Your task to perform on an android device: Do I have any events tomorrow? Image 0: 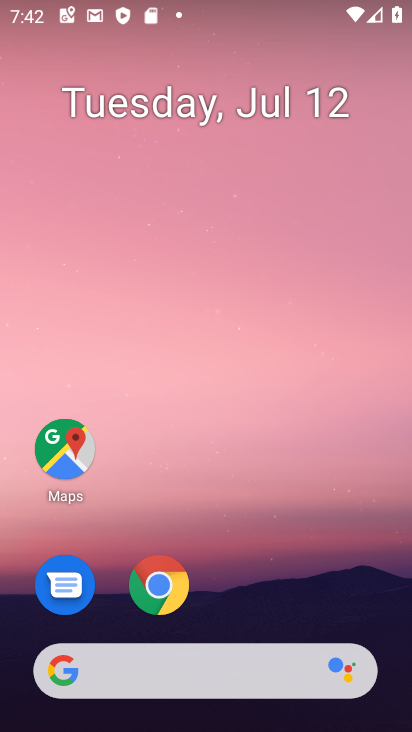
Step 0: drag from (253, 578) to (283, 112)
Your task to perform on an android device: Do I have any events tomorrow? Image 1: 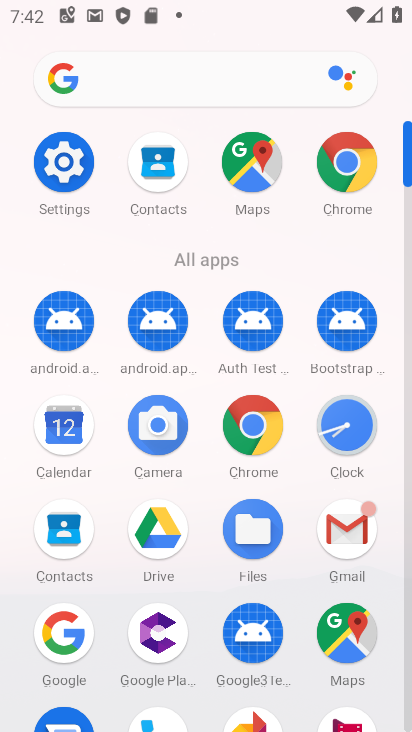
Step 1: click (67, 429)
Your task to perform on an android device: Do I have any events tomorrow? Image 2: 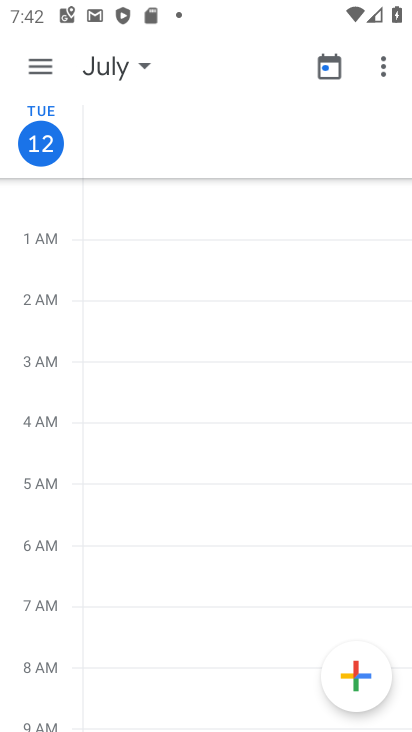
Step 2: click (42, 67)
Your task to perform on an android device: Do I have any events tomorrow? Image 3: 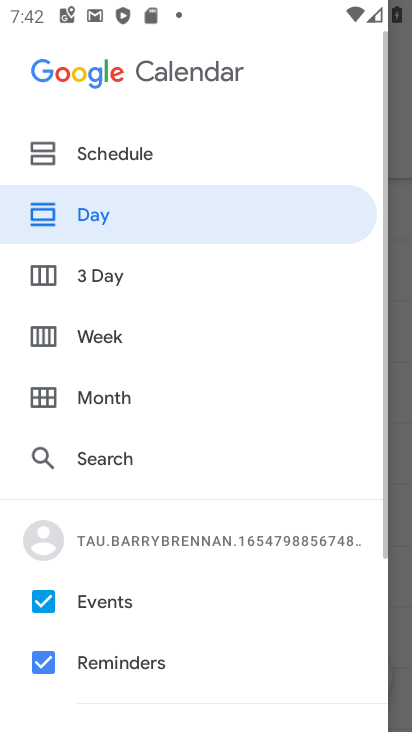
Step 3: click (45, 270)
Your task to perform on an android device: Do I have any events tomorrow? Image 4: 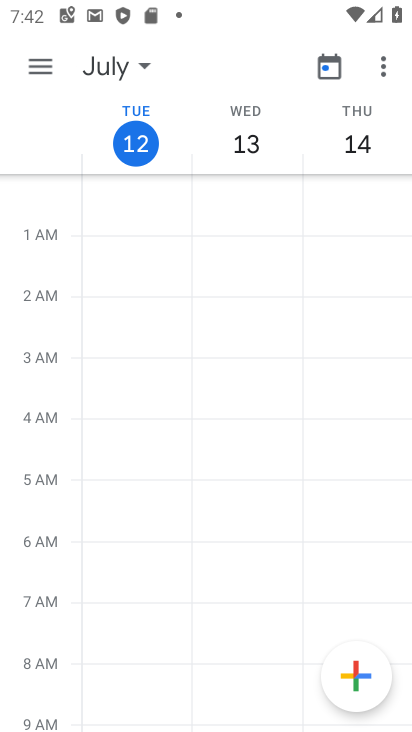
Step 4: task complete